Your task to perform on an android device: turn off sleep mode Image 0: 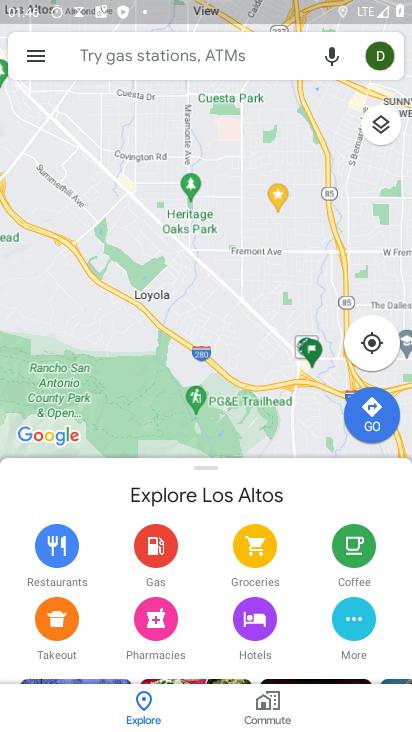
Step 0: press home button
Your task to perform on an android device: turn off sleep mode Image 1: 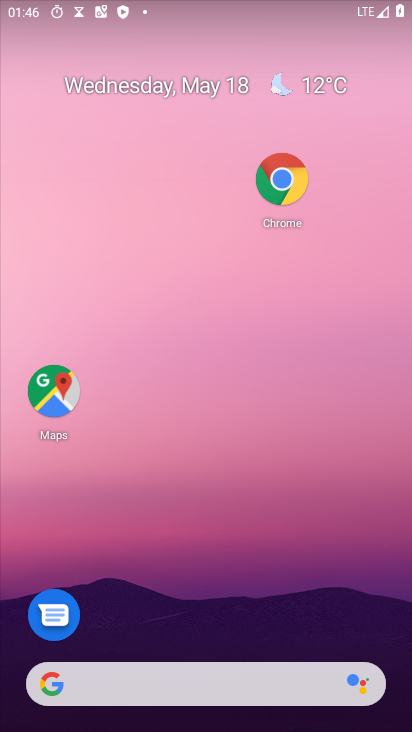
Step 1: drag from (191, 688) to (282, 137)
Your task to perform on an android device: turn off sleep mode Image 2: 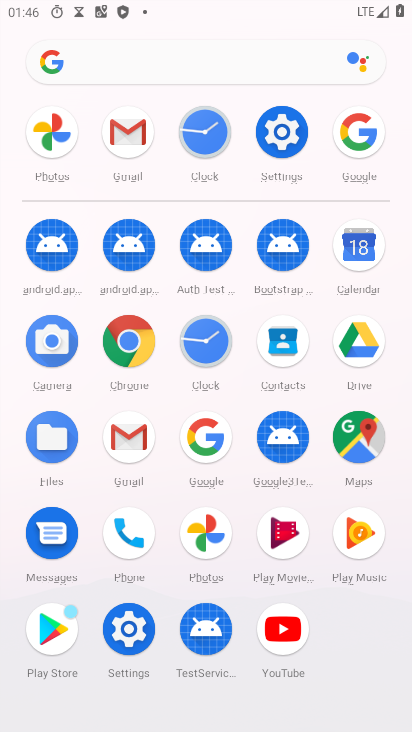
Step 2: click (287, 129)
Your task to perform on an android device: turn off sleep mode Image 3: 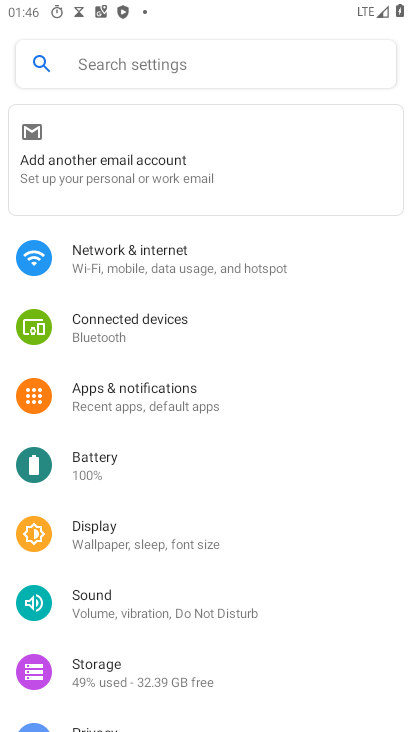
Step 3: click (134, 538)
Your task to perform on an android device: turn off sleep mode Image 4: 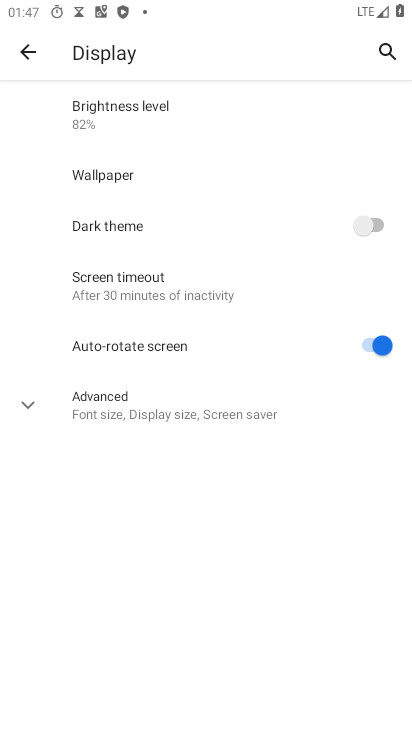
Step 4: task complete